Your task to perform on an android device: When is my next appointment? Image 0: 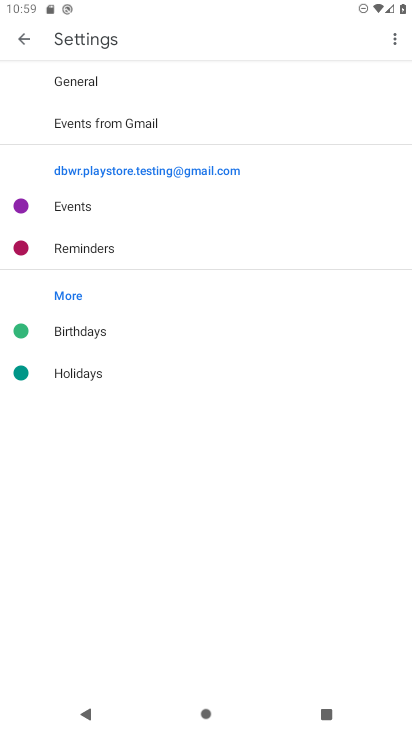
Step 0: press home button
Your task to perform on an android device: When is my next appointment? Image 1: 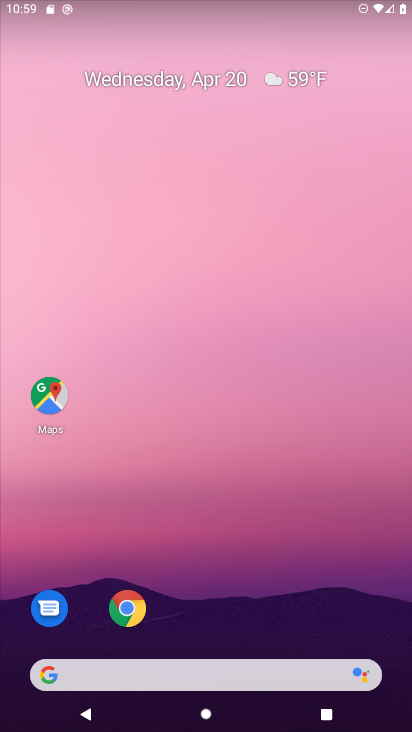
Step 1: drag from (302, 585) to (293, 111)
Your task to perform on an android device: When is my next appointment? Image 2: 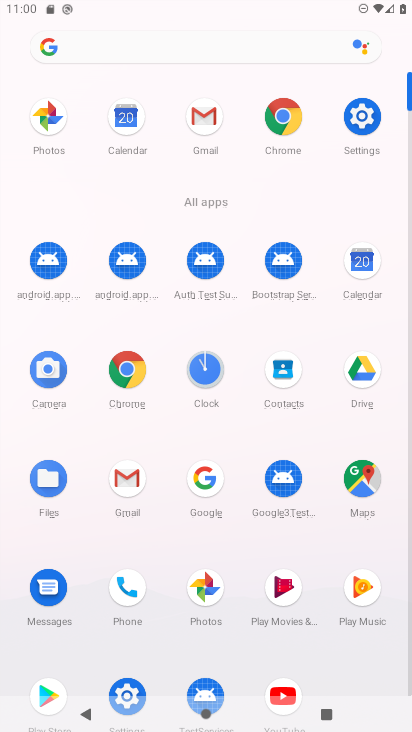
Step 2: click (360, 271)
Your task to perform on an android device: When is my next appointment? Image 3: 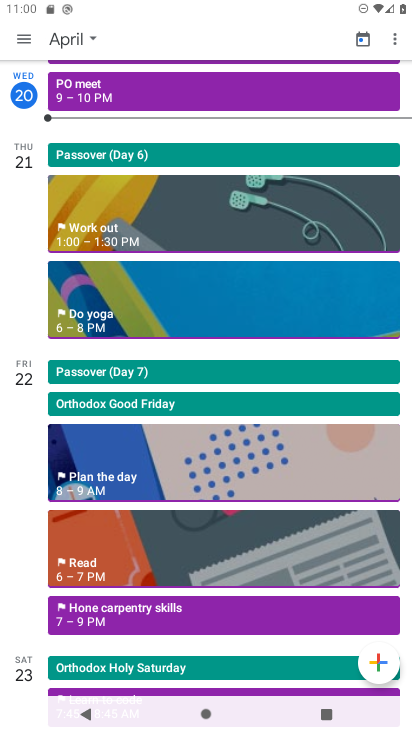
Step 3: click (84, 40)
Your task to perform on an android device: When is my next appointment? Image 4: 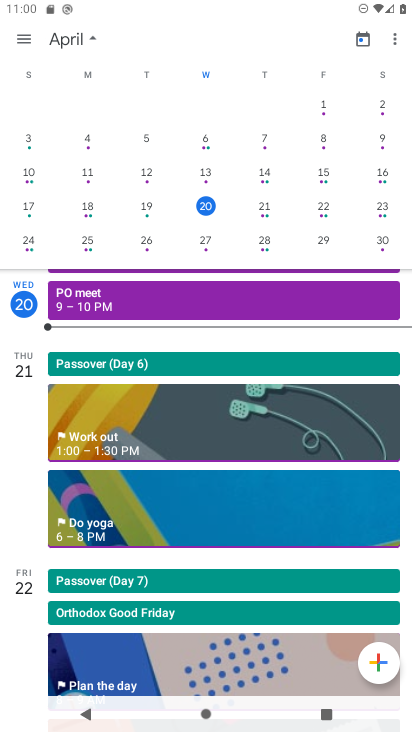
Step 4: click (201, 205)
Your task to perform on an android device: When is my next appointment? Image 5: 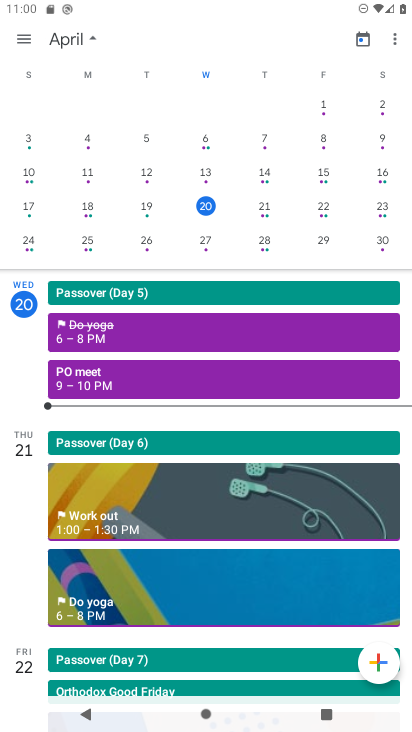
Step 5: task complete